Your task to perform on an android device: check storage Image 0: 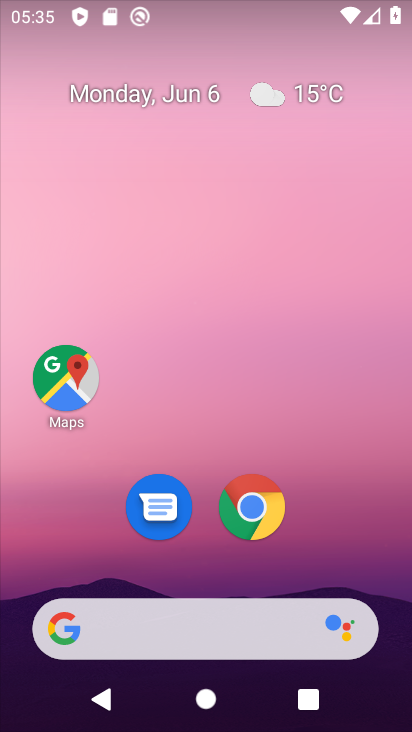
Step 0: drag from (216, 534) to (379, 38)
Your task to perform on an android device: check storage Image 1: 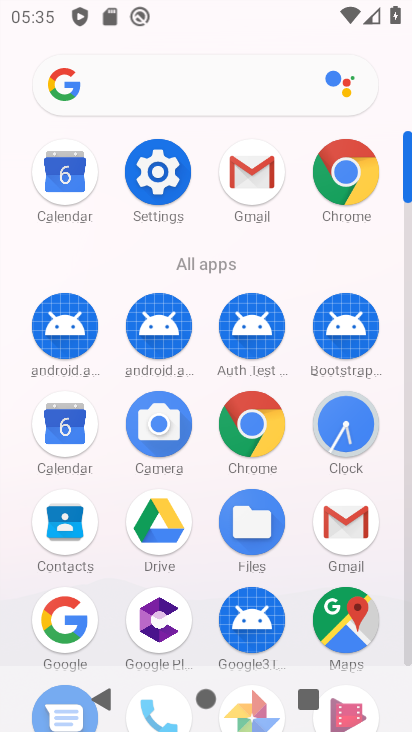
Step 1: click (153, 175)
Your task to perform on an android device: check storage Image 2: 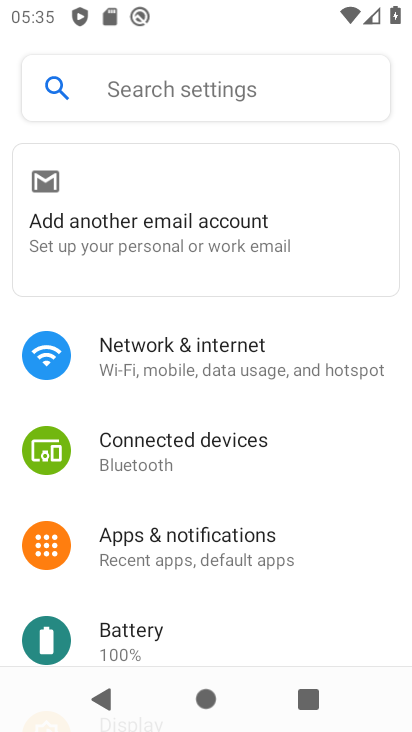
Step 2: drag from (218, 601) to (265, 51)
Your task to perform on an android device: check storage Image 3: 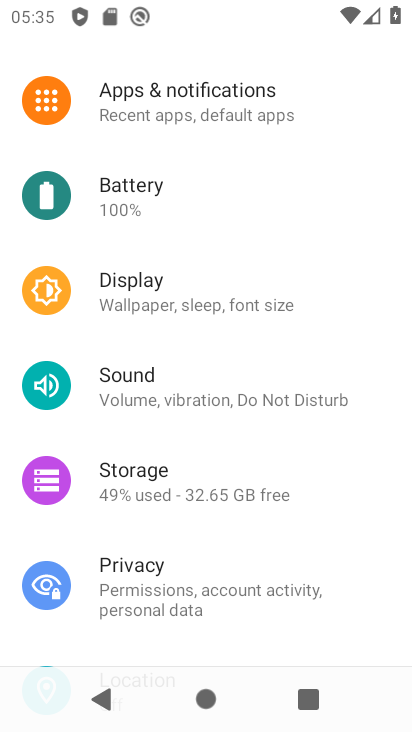
Step 3: click (262, 487)
Your task to perform on an android device: check storage Image 4: 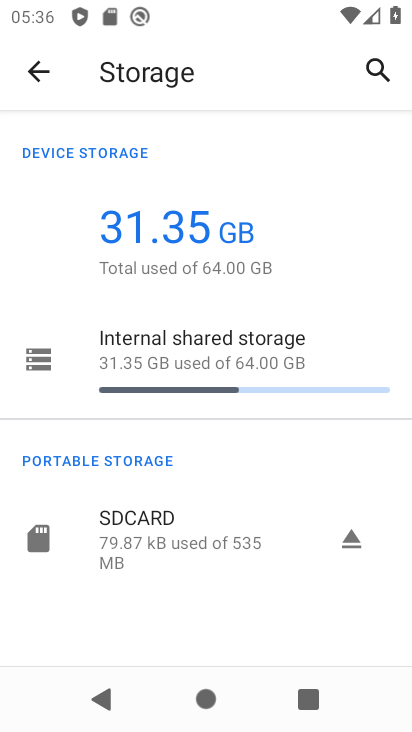
Step 4: task complete